Your task to perform on an android device: see creations saved in the google photos Image 0: 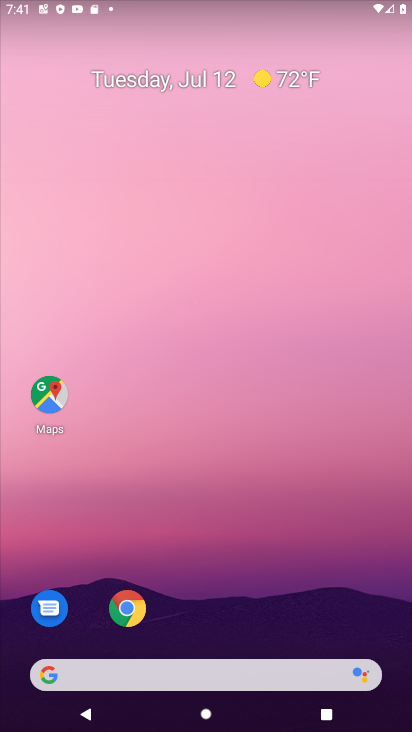
Step 0: drag from (339, 623) to (348, 135)
Your task to perform on an android device: see creations saved in the google photos Image 1: 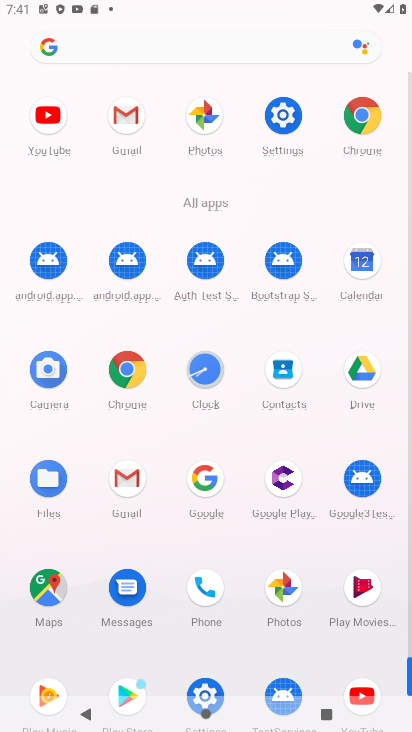
Step 1: click (286, 588)
Your task to perform on an android device: see creations saved in the google photos Image 2: 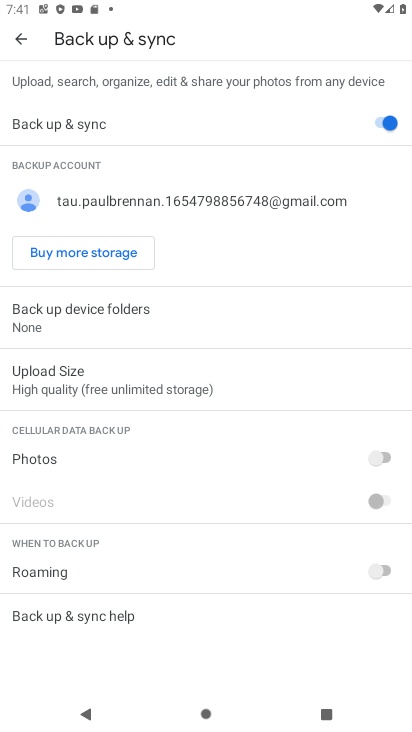
Step 2: press back button
Your task to perform on an android device: see creations saved in the google photos Image 3: 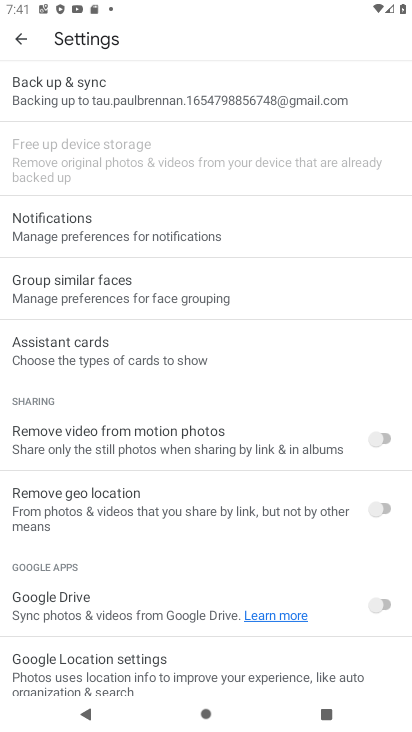
Step 3: press back button
Your task to perform on an android device: see creations saved in the google photos Image 4: 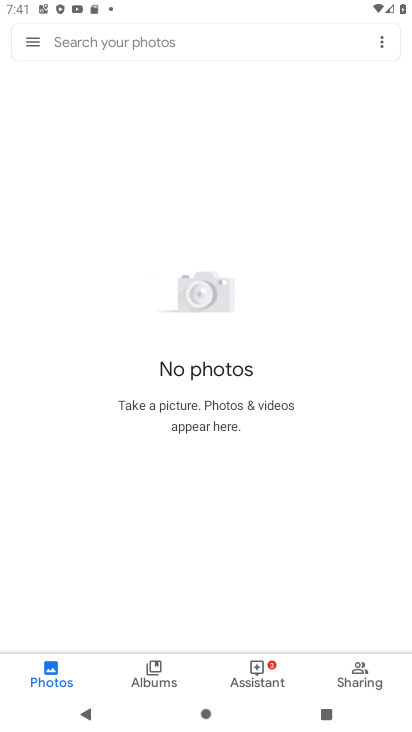
Step 4: click (203, 36)
Your task to perform on an android device: see creations saved in the google photos Image 5: 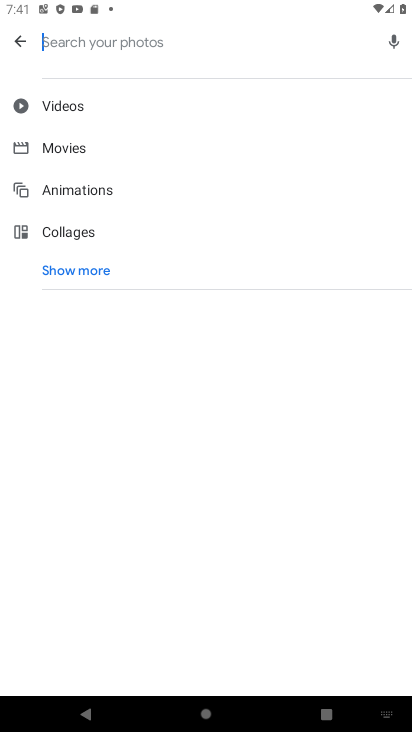
Step 5: click (111, 275)
Your task to perform on an android device: see creations saved in the google photos Image 6: 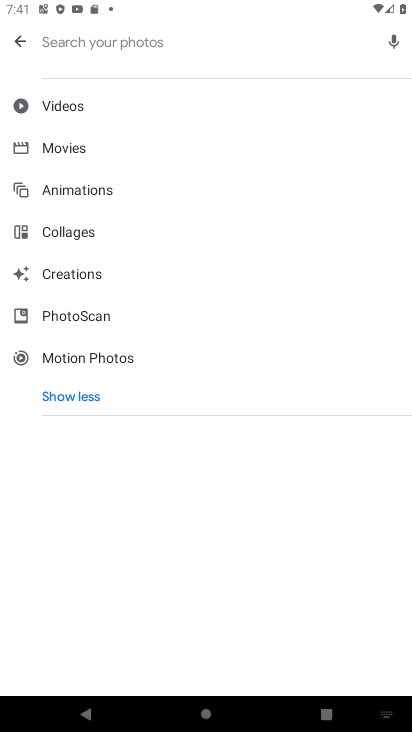
Step 6: click (88, 273)
Your task to perform on an android device: see creations saved in the google photos Image 7: 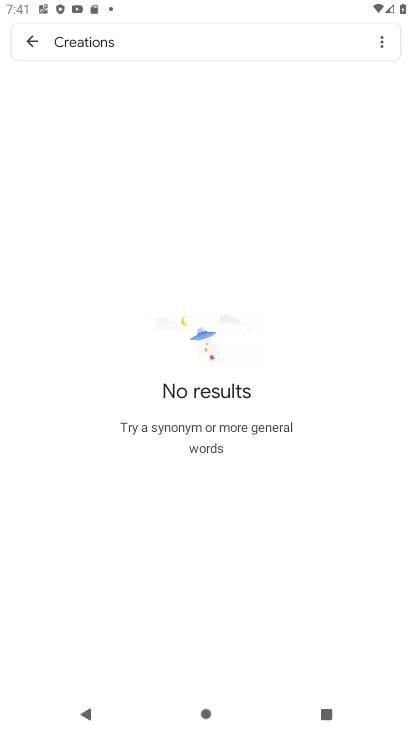
Step 7: task complete